Your task to perform on an android device: see sites visited before in the chrome app Image 0: 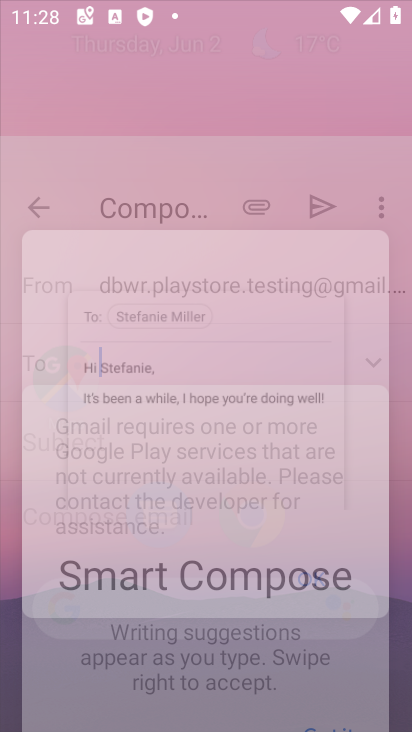
Step 0: drag from (396, 592) to (203, 18)
Your task to perform on an android device: see sites visited before in the chrome app Image 1: 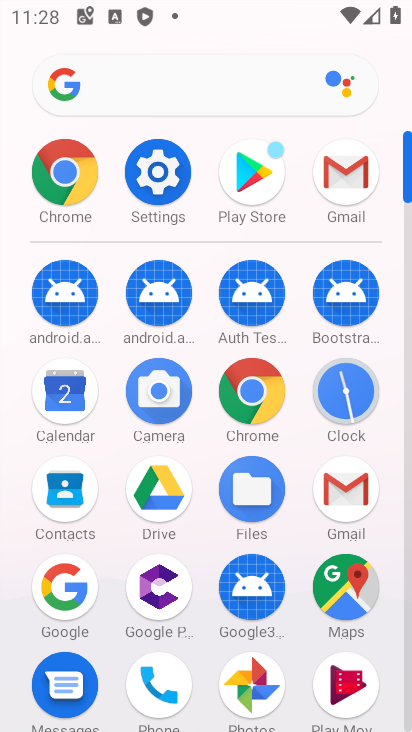
Step 1: click (86, 172)
Your task to perform on an android device: see sites visited before in the chrome app Image 2: 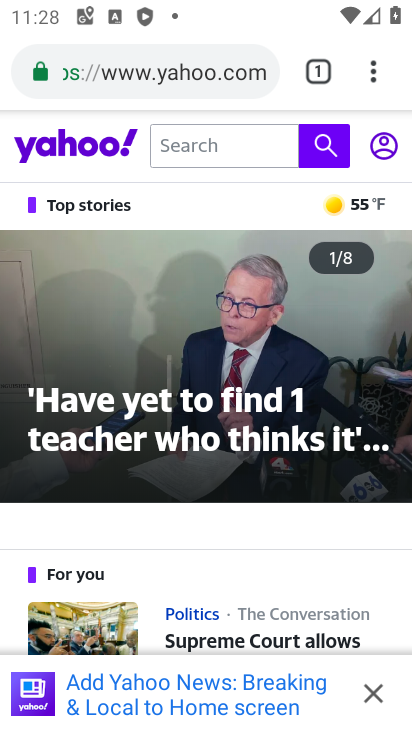
Step 2: task complete